Your task to perform on an android device: Turn on the flashlight Image 0: 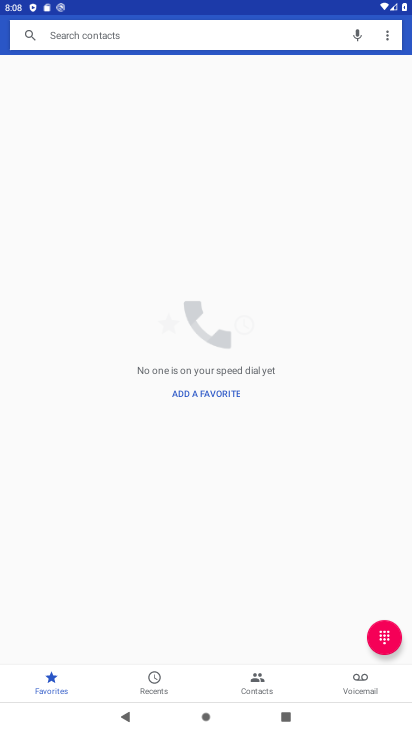
Step 0: press home button
Your task to perform on an android device: Turn on the flashlight Image 1: 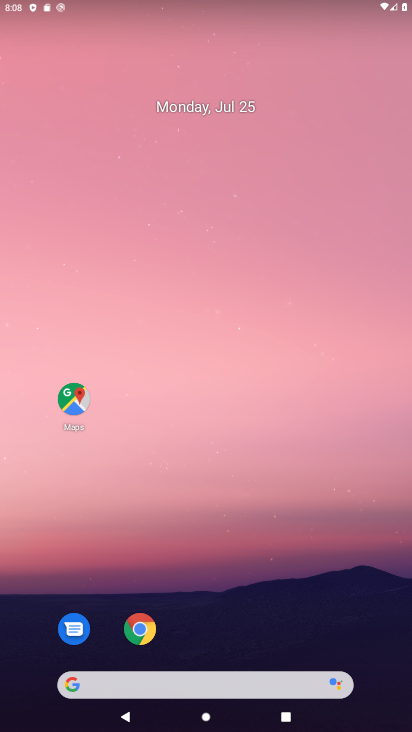
Step 1: drag from (214, 533) to (222, 135)
Your task to perform on an android device: Turn on the flashlight Image 2: 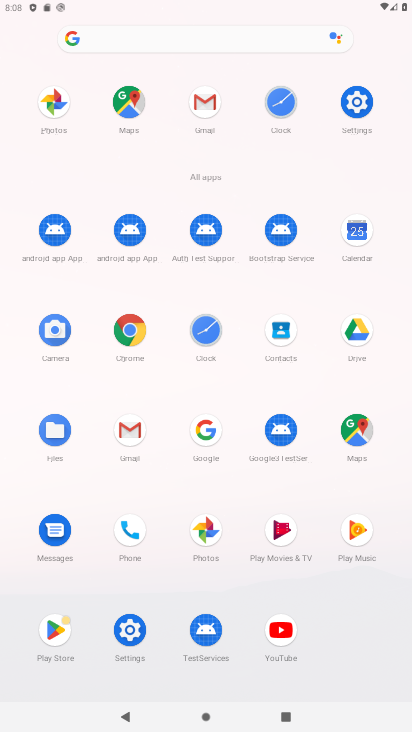
Step 2: click (134, 639)
Your task to perform on an android device: Turn on the flashlight Image 3: 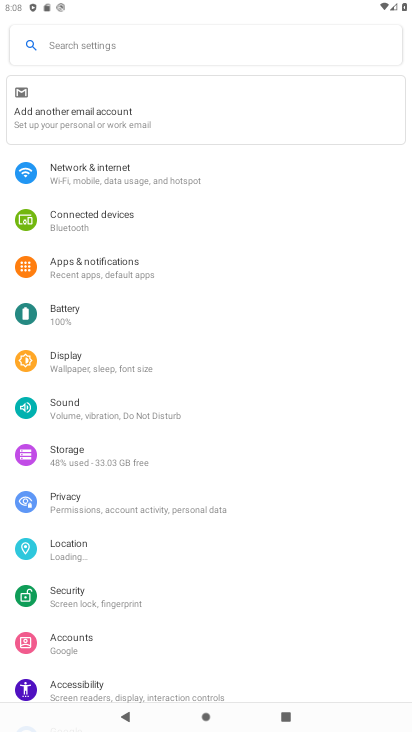
Step 3: click (170, 44)
Your task to perform on an android device: Turn on the flashlight Image 4: 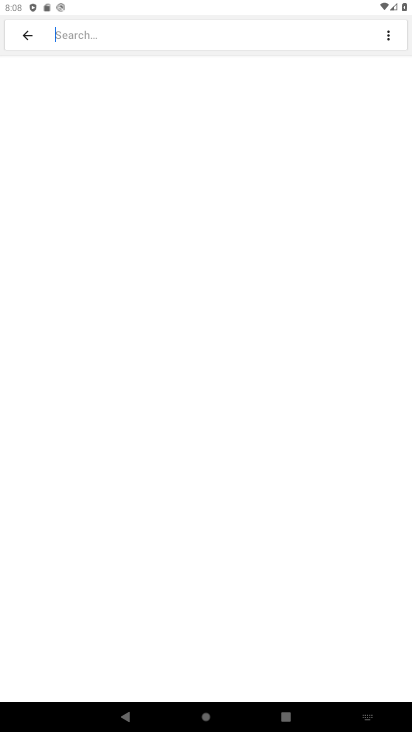
Step 4: type "flashlight"
Your task to perform on an android device: Turn on the flashlight Image 5: 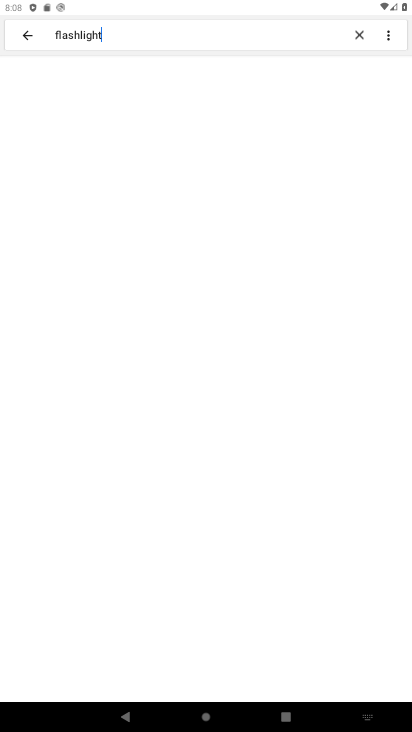
Step 5: click (66, 94)
Your task to perform on an android device: Turn on the flashlight Image 6: 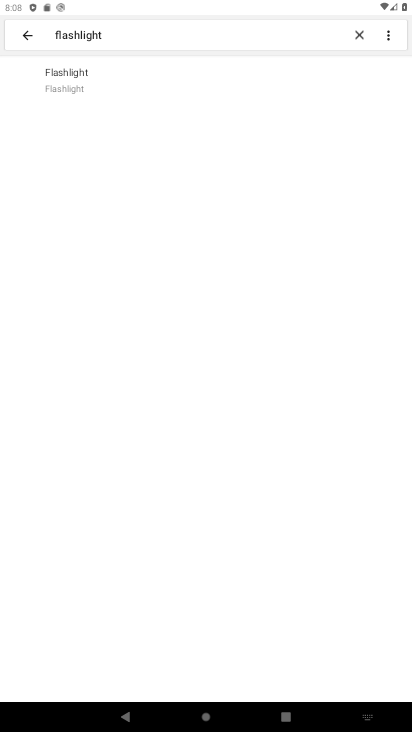
Step 6: click (65, 95)
Your task to perform on an android device: Turn on the flashlight Image 7: 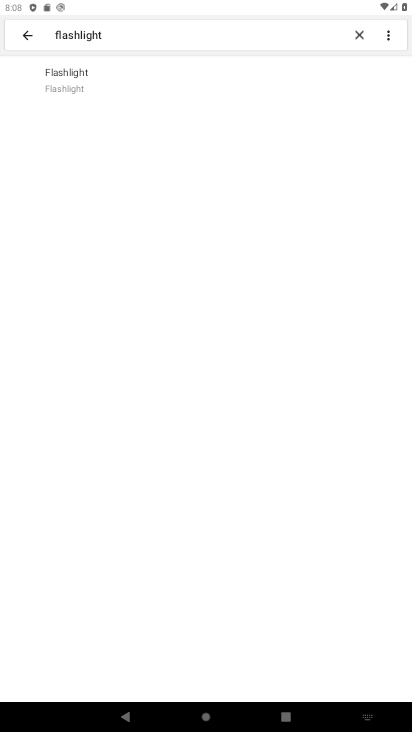
Step 7: task complete